Your task to perform on an android device: see creations saved in the google photos Image 0: 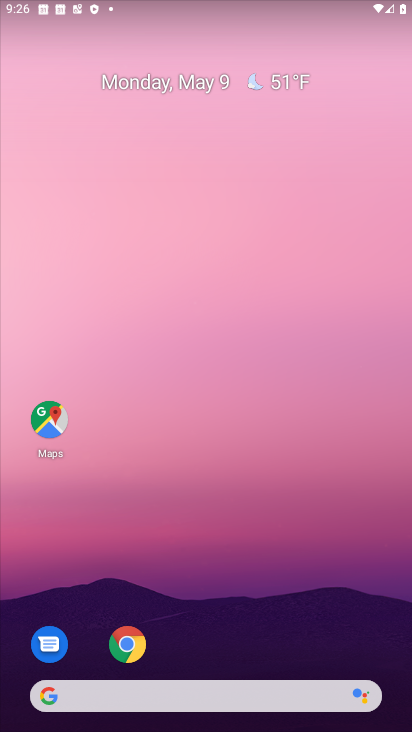
Step 0: drag from (219, 674) to (109, 65)
Your task to perform on an android device: see creations saved in the google photos Image 1: 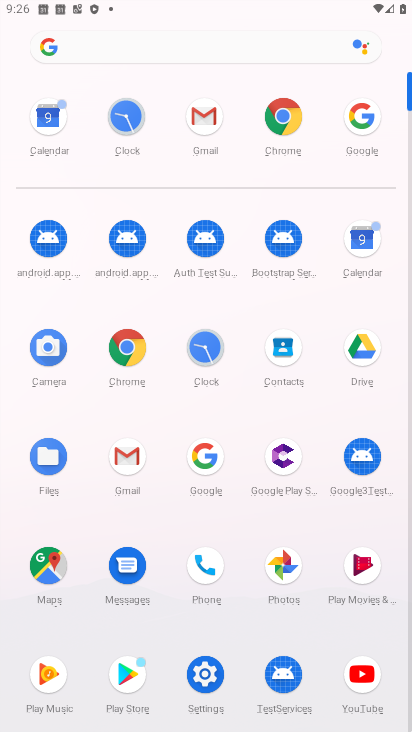
Step 1: click (273, 574)
Your task to perform on an android device: see creations saved in the google photos Image 2: 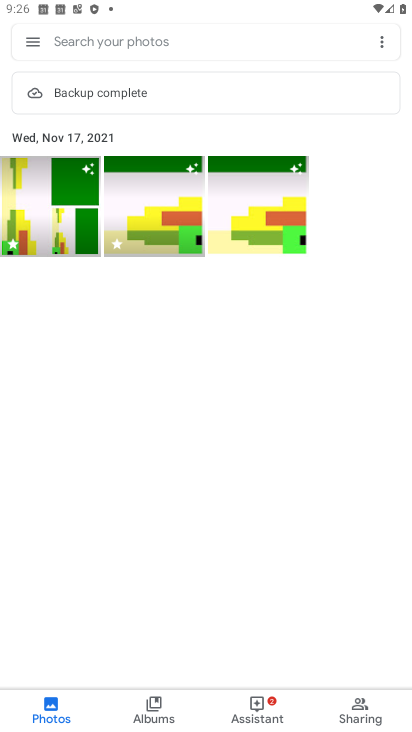
Step 2: click (32, 45)
Your task to perform on an android device: see creations saved in the google photos Image 3: 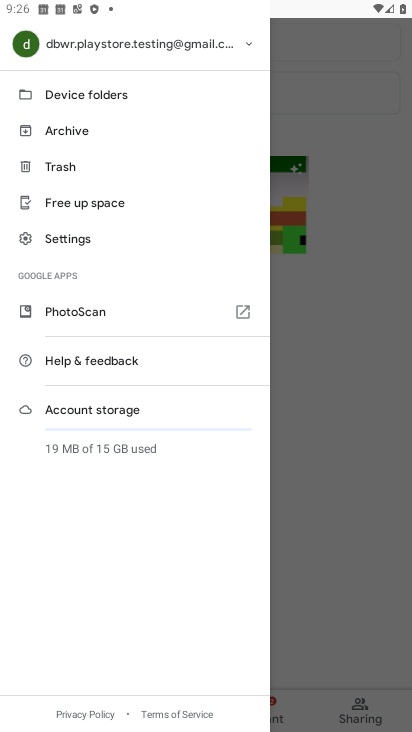
Step 3: click (316, 110)
Your task to perform on an android device: see creations saved in the google photos Image 4: 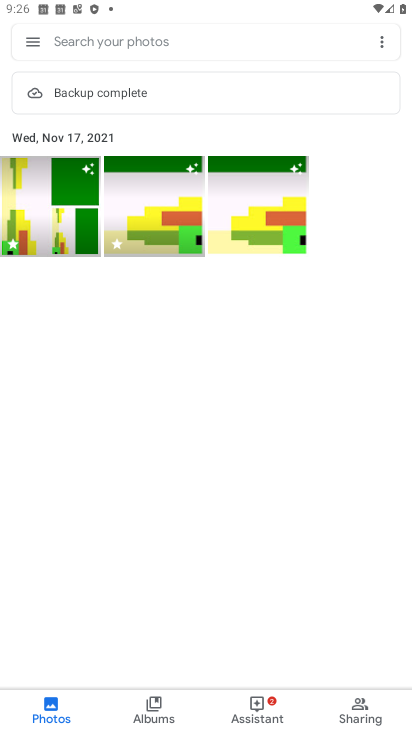
Step 4: click (234, 43)
Your task to perform on an android device: see creations saved in the google photos Image 5: 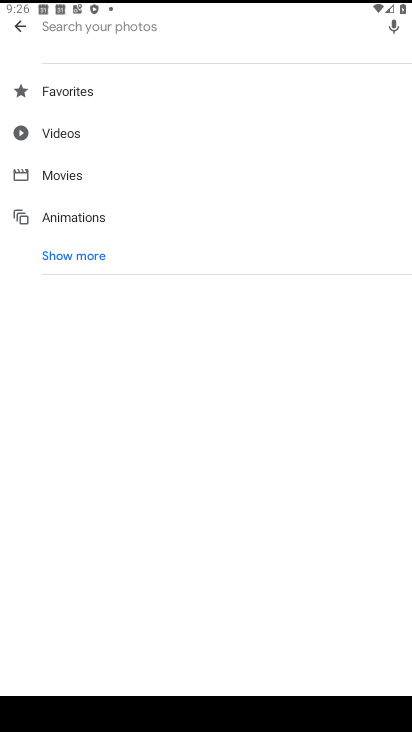
Step 5: click (72, 257)
Your task to perform on an android device: see creations saved in the google photos Image 6: 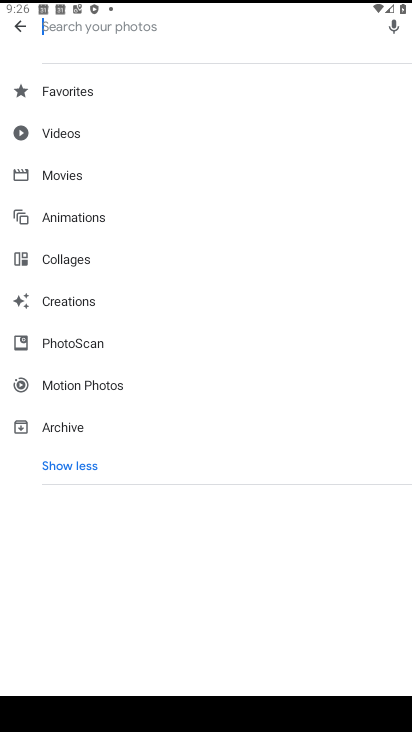
Step 6: click (65, 286)
Your task to perform on an android device: see creations saved in the google photos Image 7: 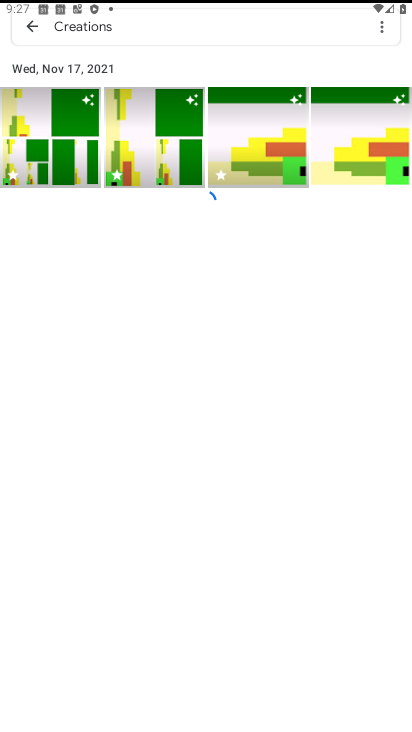
Step 7: task complete